Your task to perform on an android device: Toggle the flashlight Image 0: 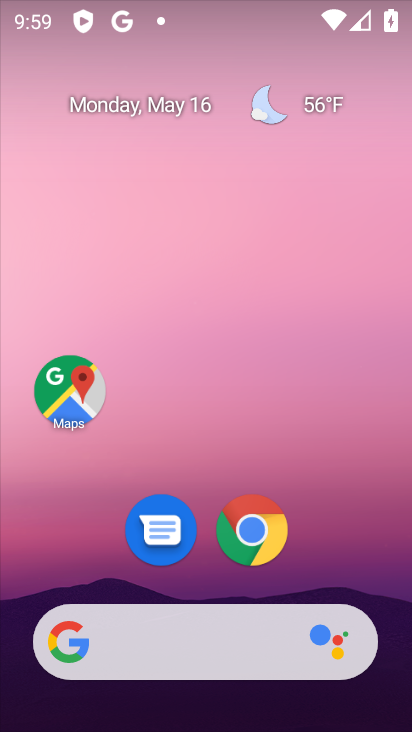
Step 0: drag from (274, 1) to (266, 451)
Your task to perform on an android device: Toggle the flashlight Image 1: 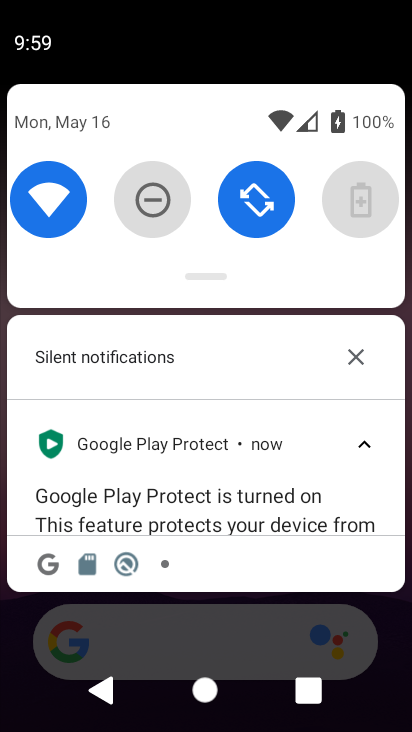
Step 1: drag from (199, 133) to (210, 383)
Your task to perform on an android device: Toggle the flashlight Image 2: 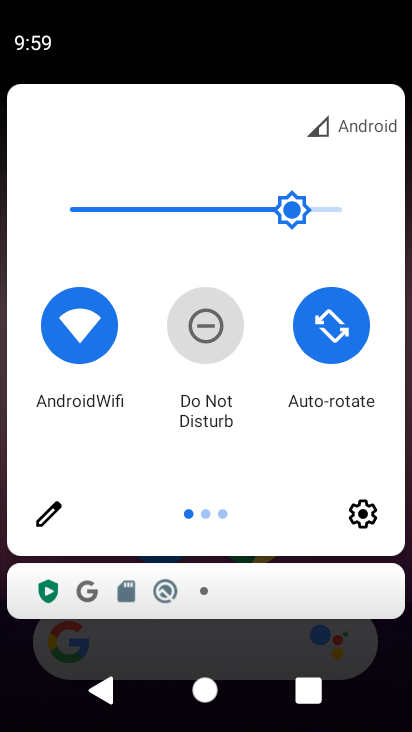
Step 2: click (57, 517)
Your task to perform on an android device: Toggle the flashlight Image 3: 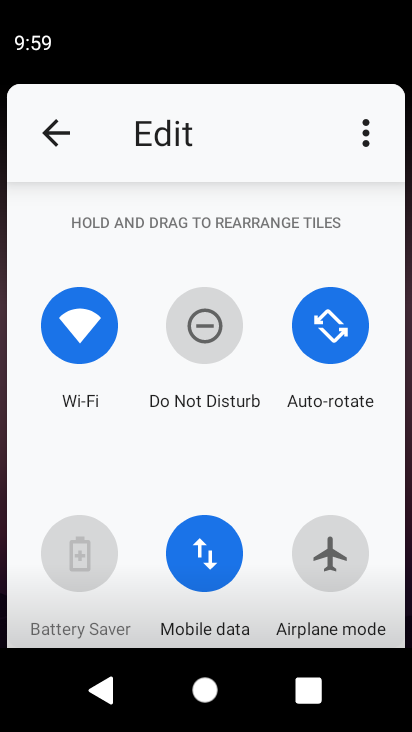
Step 3: task complete